Your task to perform on an android device: Open CNN.com Image 0: 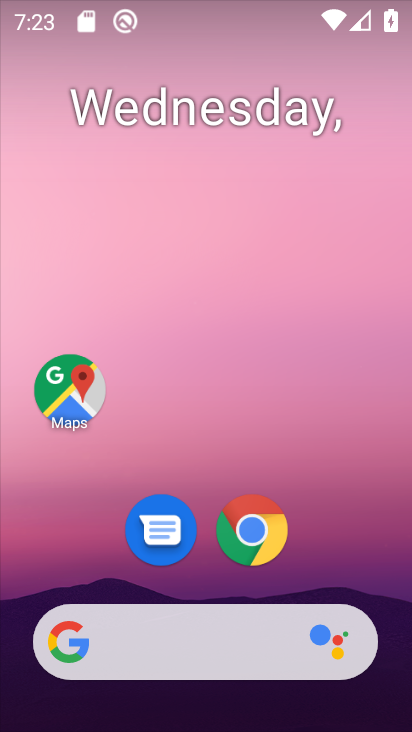
Step 0: click (232, 550)
Your task to perform on an android device: Open CNN.com Image 1: 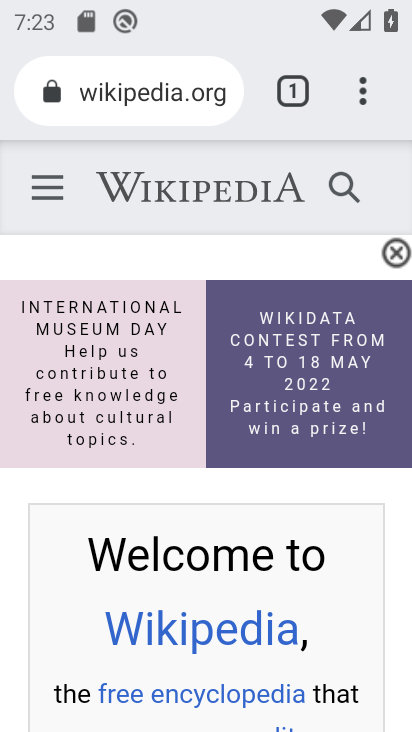
Step 1: press back button
Your task to perform on an android device: Open CNN.com Image 2: 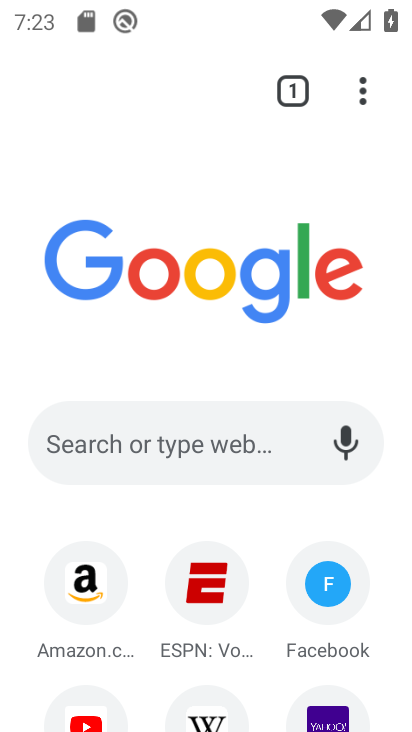
Step 2: click (140, 440)
Your task to perform on an android device: Open CNN.com Image 3: 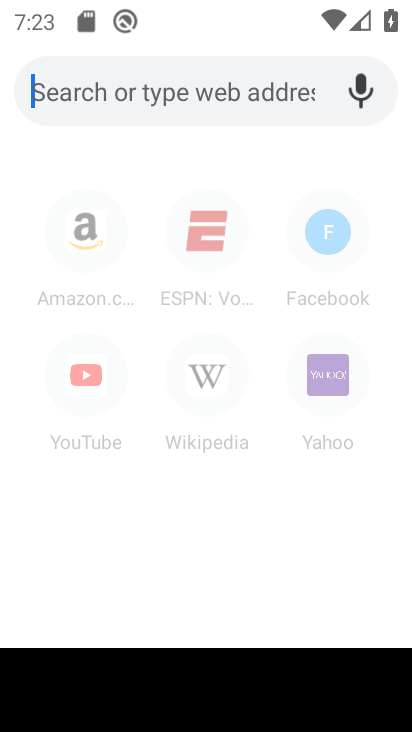
Step 3: type "cnn.com"
Your task to perform on an android device: Open CNN.com Image 4: 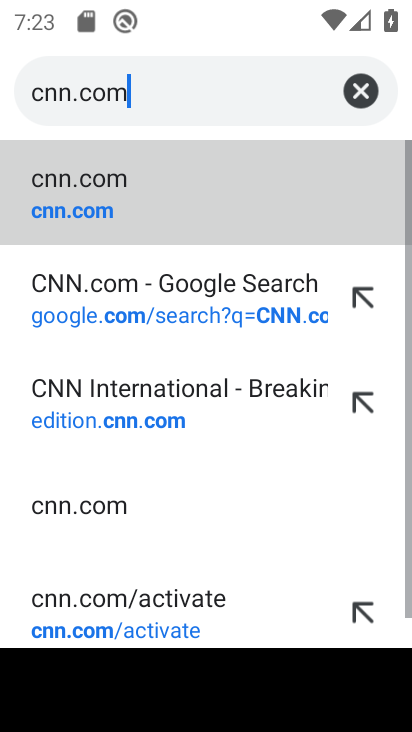
Step 4: click (227, 218)
Your task to perform on an android device: Open CNN.com Image 5: 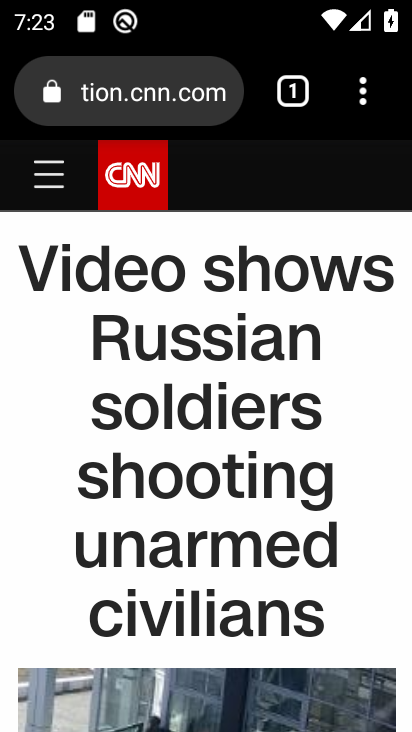
Step 5: task complete